Your task to perform on an android device: change the clock display to digital Image 0: 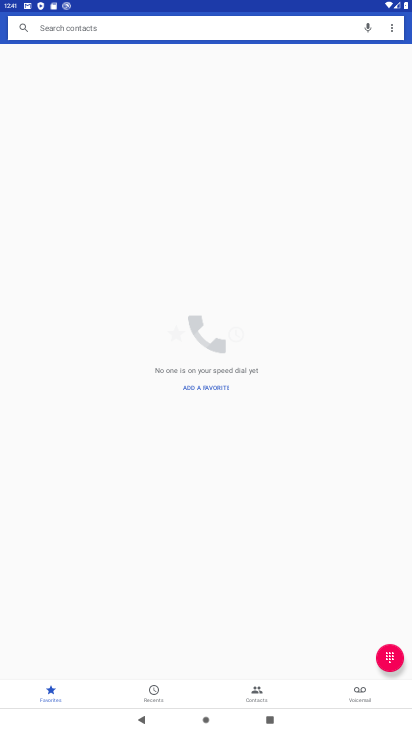
Step 0: press home button
Your task to perform on an android device: change the clock display to digital Image 1: 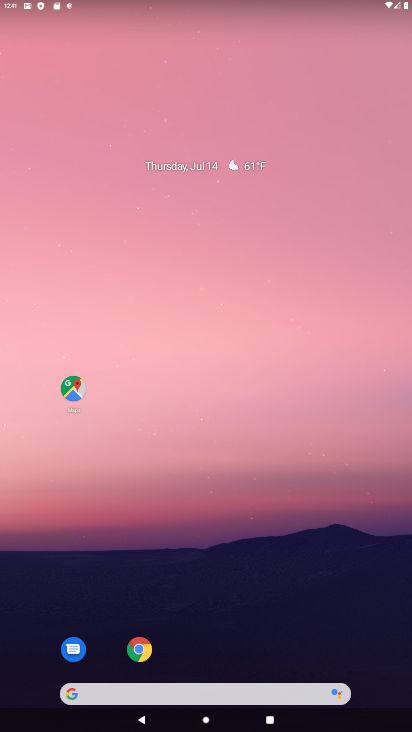
Step 1: drag from (188, 672) to (276, 245)
Your task to perform on an android device: change the clock display to digital Image 2: 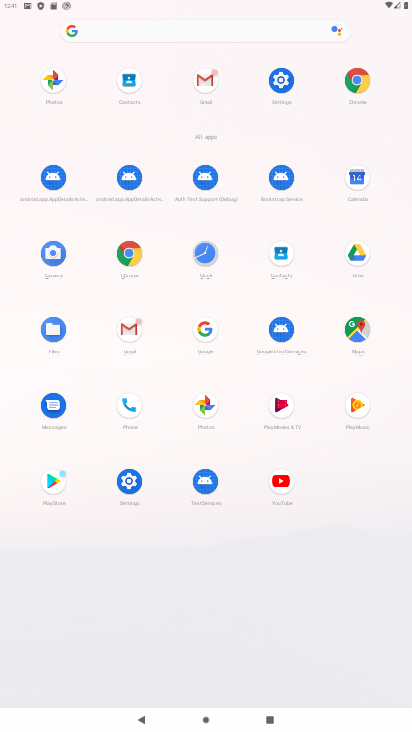
Step 2: click (210, 262)
Your task to perform on an android device: change the clock display to digital Image 3: 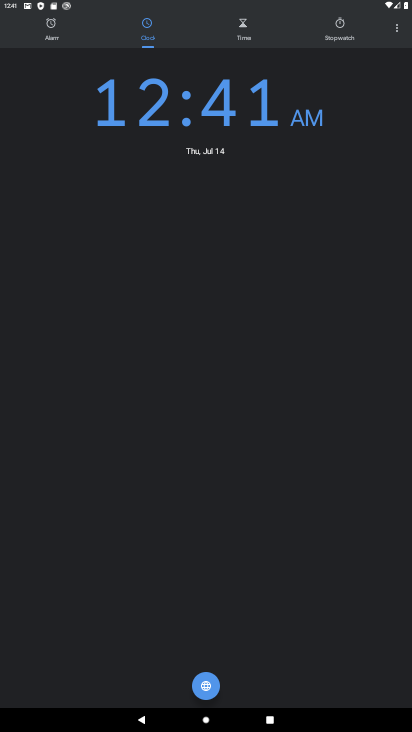
Step 3: click (402, 31)
Your task to perform on an android device: change the clock display to digital Image 4: 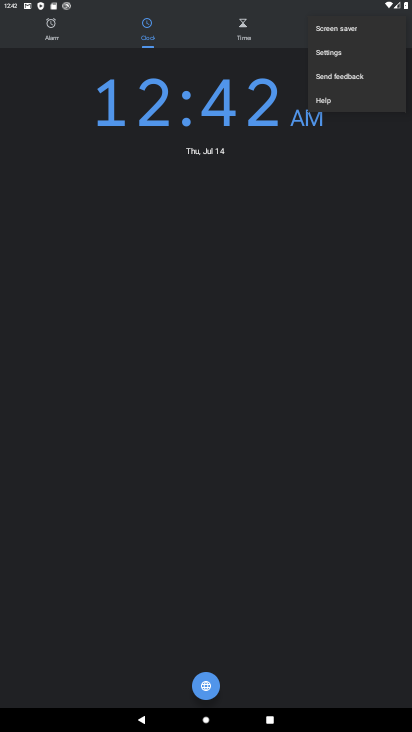
Step 4: click (393, 46)
Your task to perform on an android device: change the clock display to digital Image 5: 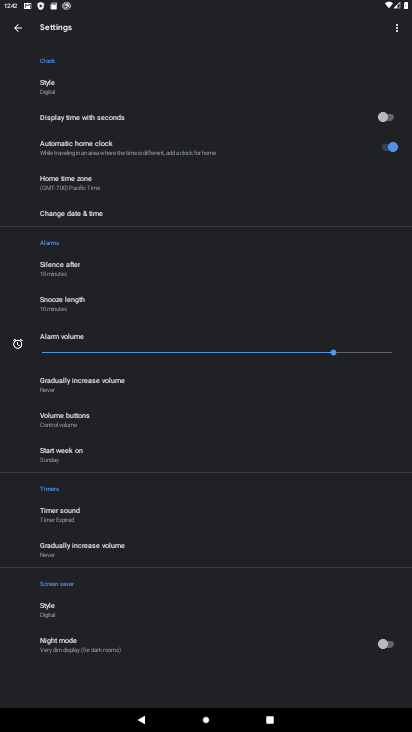
Step 5: click (88, 92)
Your task to perform on an android device: change the clock display to digital Image 6: 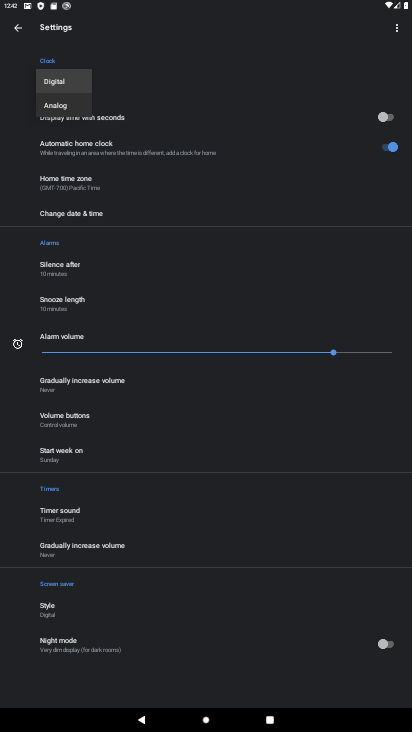
Step 6: task complete